Your task to perform on an android device: Open network settings Image 0: 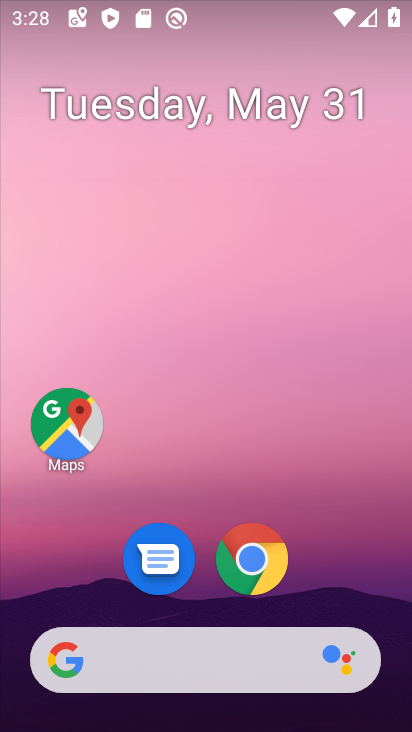
Step 0: click (217, 723)
Your task to perform on an android device: Open network settings Image 1: 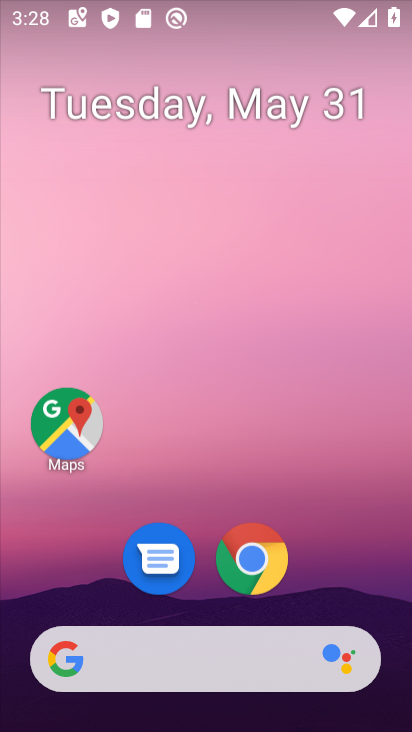
Step 1: drag from (204, 305) to (204, 160)
Your task to perform on an android device: Open network settings Image 2: 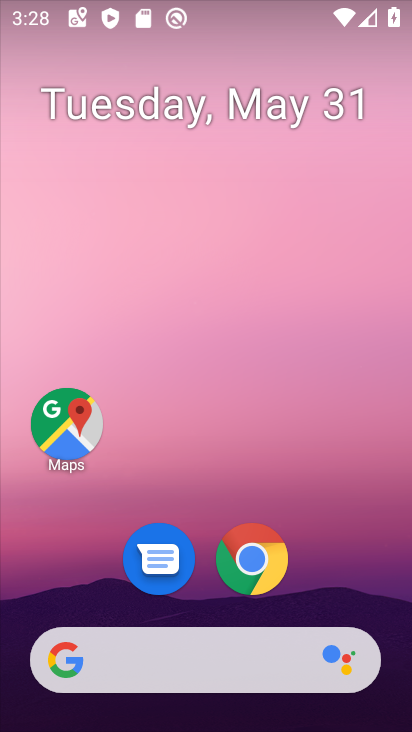
Step 2: drag from (210, 725) to (185, 1)
Your task to perform on an android device: Open network settings Image 3: 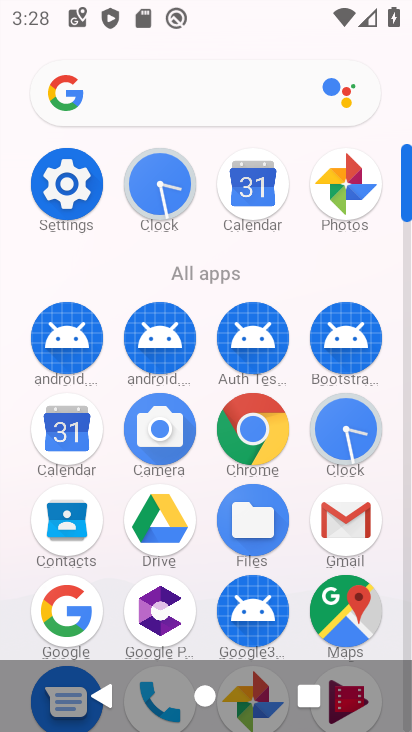
Step 3: click (62, 166)
Your task to perform on an android device: Open network settings Image 4: 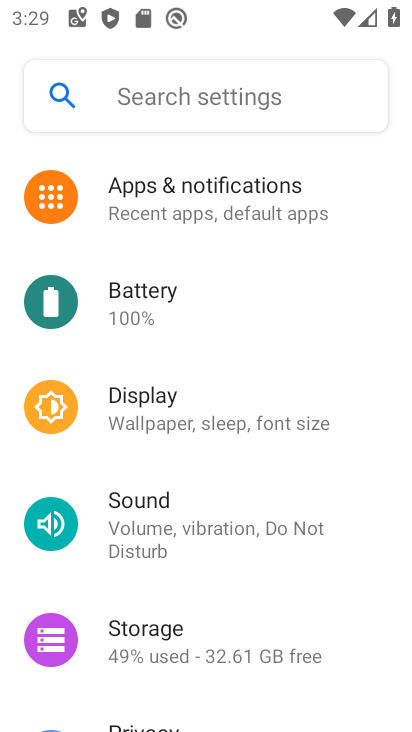
Step 4: drag from (168, 208) to (190, 592)
Your task to perform on an android device: Open network settings Image 5: 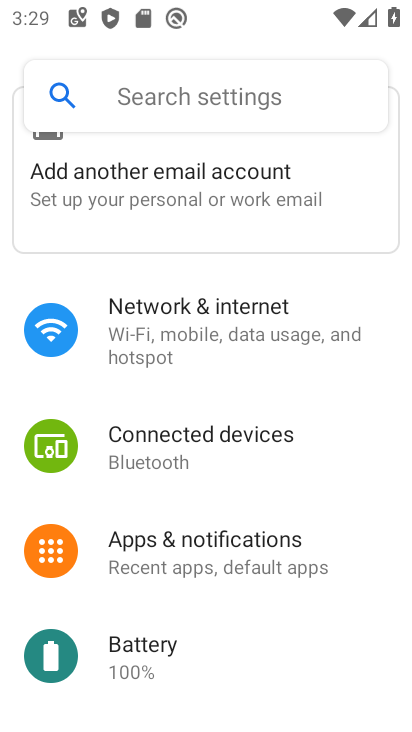
Step 5: click (182, 323)
Your task to perform on an android device: Open network settings Image 6: 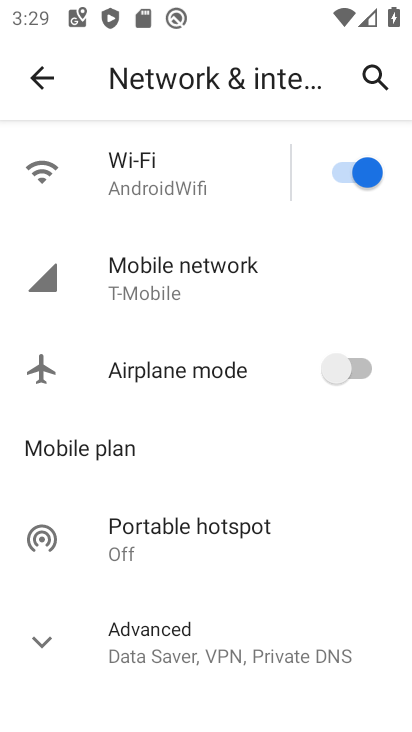
Step 6: click (168, 278)
Your task to perform on an android device: Open network settings Image 7: 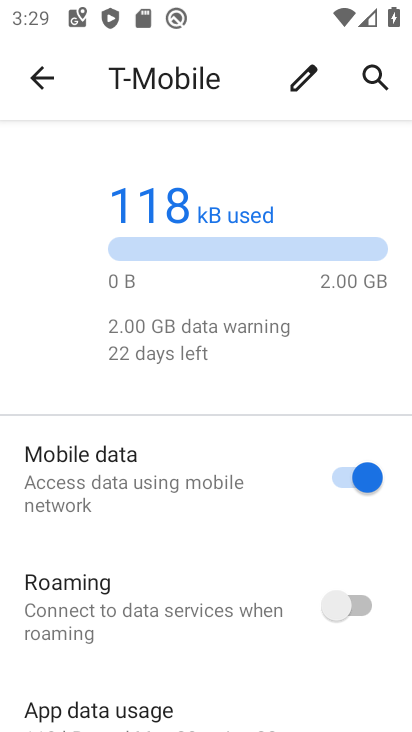
Step 7: task complete